Your task to perform on an android device: change the clock display to show seconds Image 0: 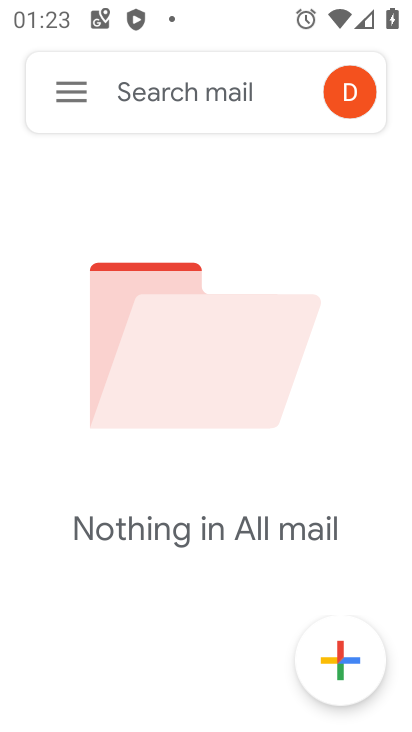
Step 0: press home button
Your task to perform on an android device: change the clock display to show seconds Image 1: 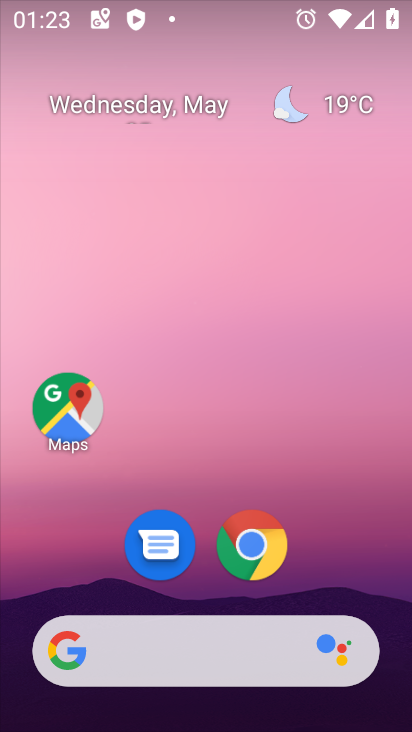
Step 1: drag from (361, 594) to (350, 160)
Your task to perform on an android device: change the clock display to show seconds Image 2: 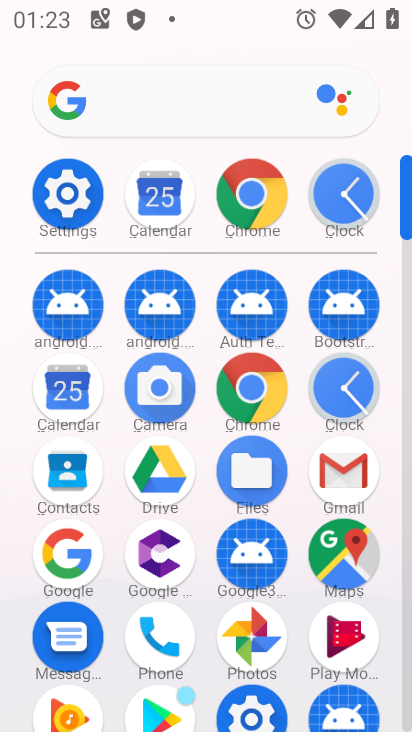
Step 2: click (343, 391)
Your task to perform on an android device: change the clock display to show seconds Image 3: 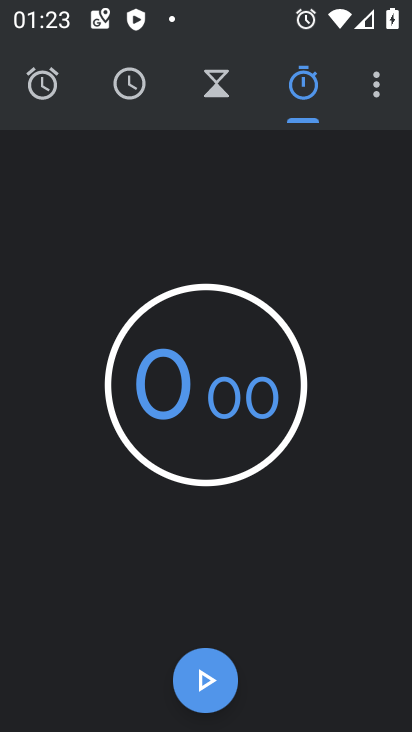
Step 3: click (383, 88)
Your task to perform on an android device: change the clock display to show seconds Image 4: 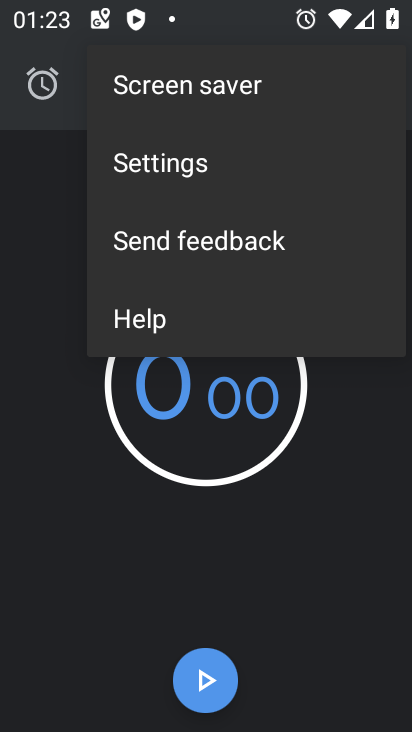
Step 4: click (156, 162)
Your task to perform on an android device: change the clock display to show seconds Image 5: 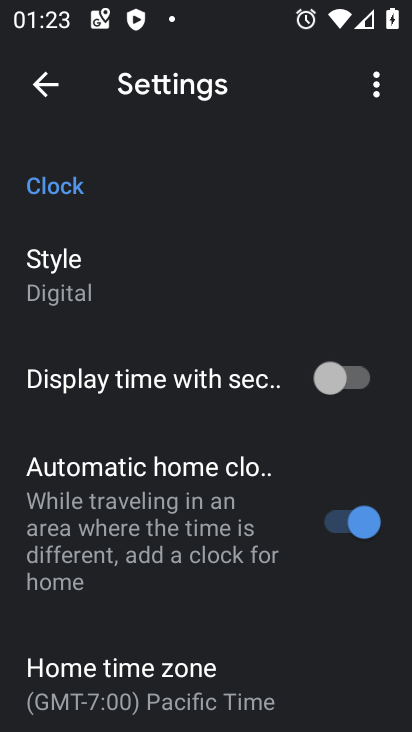
Step 5: click (355, 390)
Your task to perform on an android device: change the clock display to show seconds Image 6: 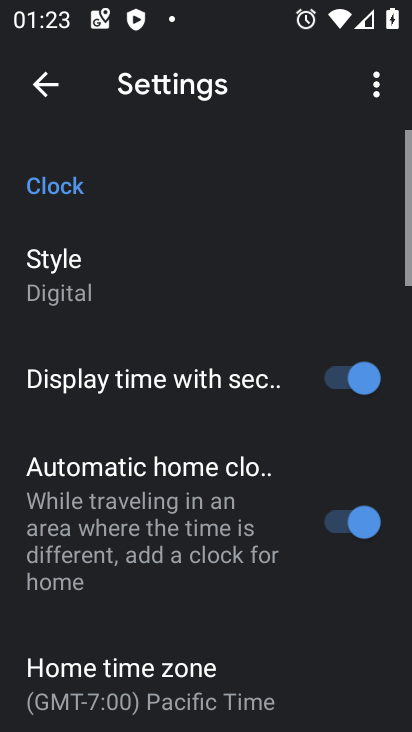
Step 6: task complete